Your task to perform on an android device: Do I have any events today? Image 0: 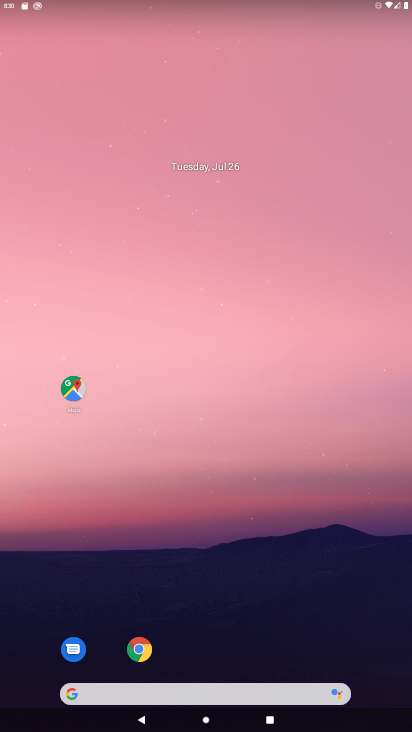
Step 0: click (197, 162)
Your task to perform on an android device: Do I have any events today? Image 1: 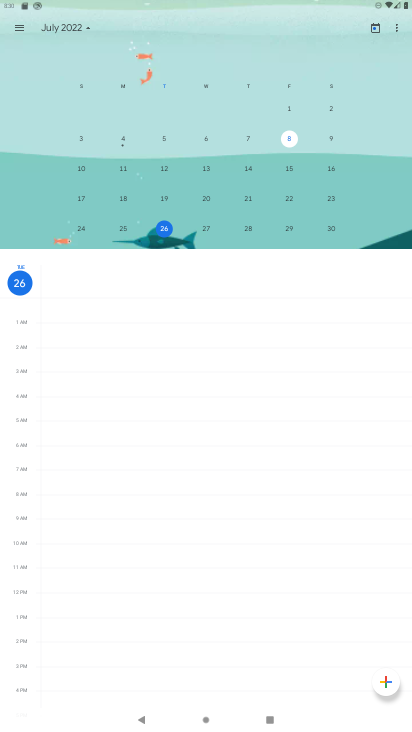
Step 1: task complete